Your task to perform on an android device: turn off priority inbox in the gmail app Image 0: 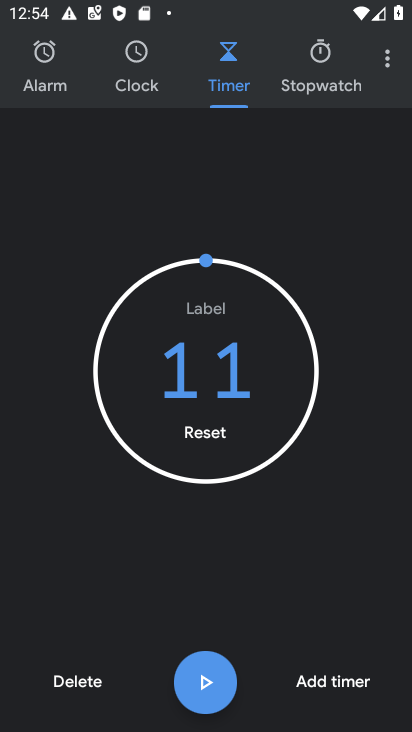
Step 0: press home button
Your task to perform on an android device: turn off priority inbox in the gmail app Image 1: 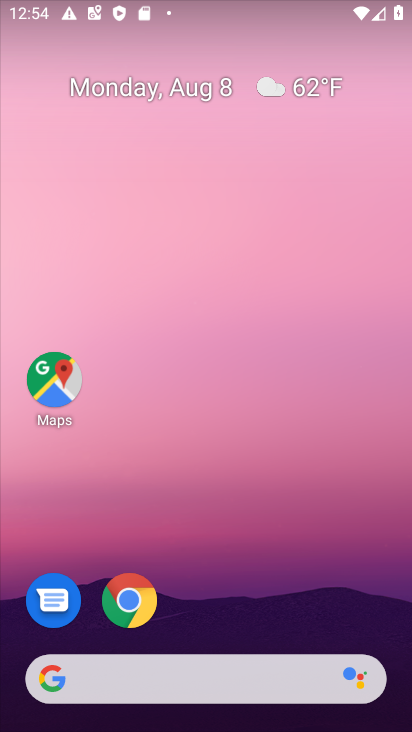
Step 1: drag from (201, 610) to (163, 233)
Your task to perform on an android device: turn off priority inbox in the gmail app Image 2: 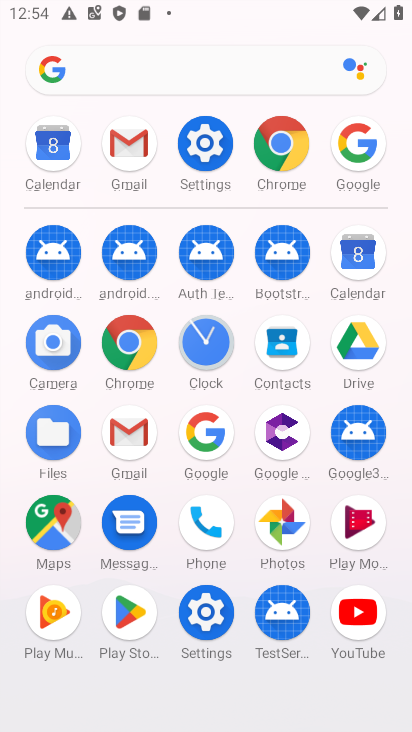
Step 2: click (126, 150)
Your task to perform on an android device: turn off priority inbox in the gmail app Image 3: 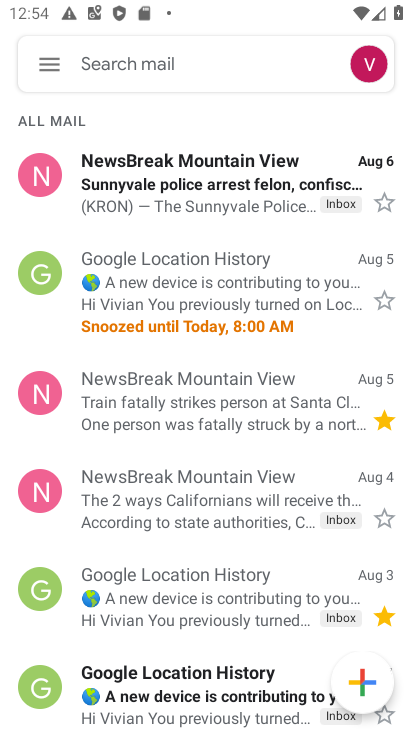
Step 3: click (51, 61)
Your task to perform on an android device: turn off priority inbox in the gmail app Image 4: 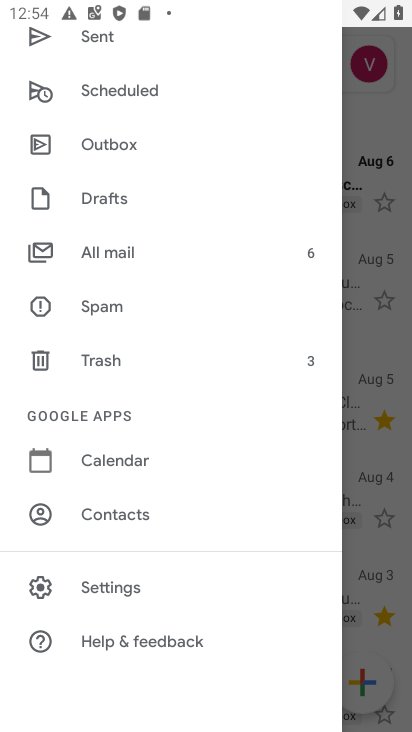
Step 4: click (143, 584)
Your task to perform on an android device: turn off priority inbox in the gmail app Image 5: 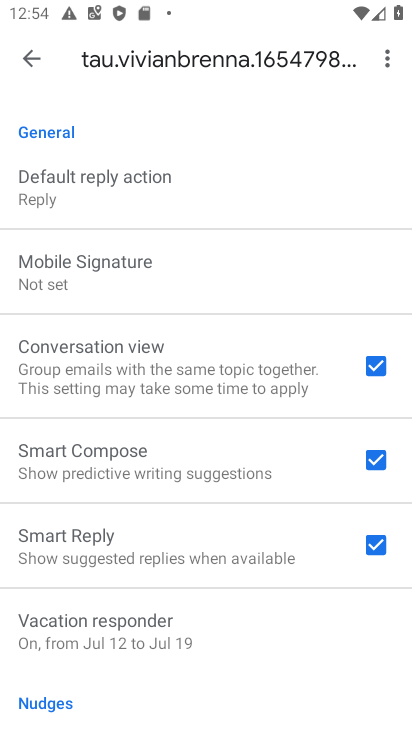
Step 5: drag from (177, 246) to (181, 520)
Your task to perform on an android device: turn off priority inbox in the gmail app Image 6: 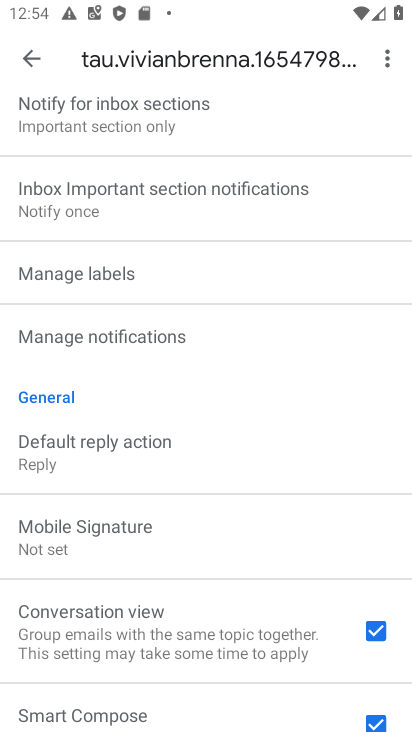
Step 6: drag from (175, 240) to (209, 508)
Your task to perform on an android device: turn off priority inbox in the gmail app Image 7: 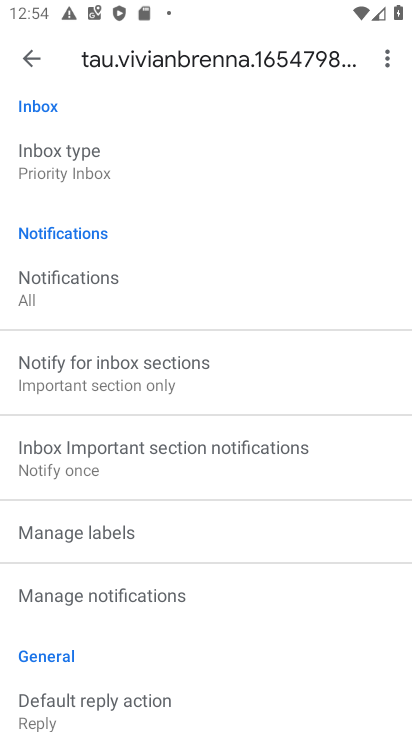
Step 7: click (112, 172)
Your task to perform on an android device: turn off priority inbox in the gmail app Image 8: 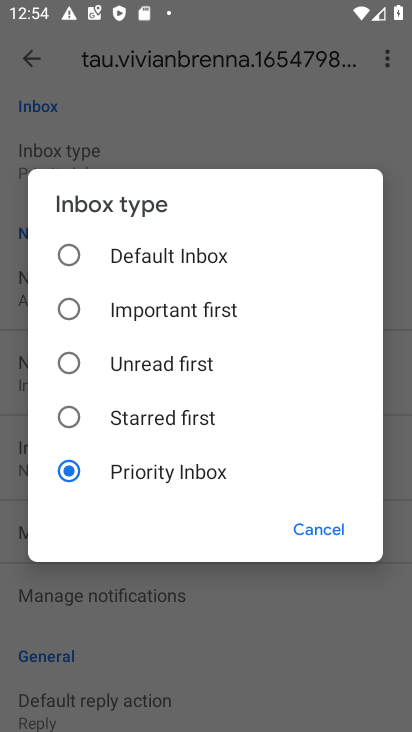
Step 8: click (136, 258)
Your task to perform on an android device: turn off priority inbox in the gmail app Image 9: 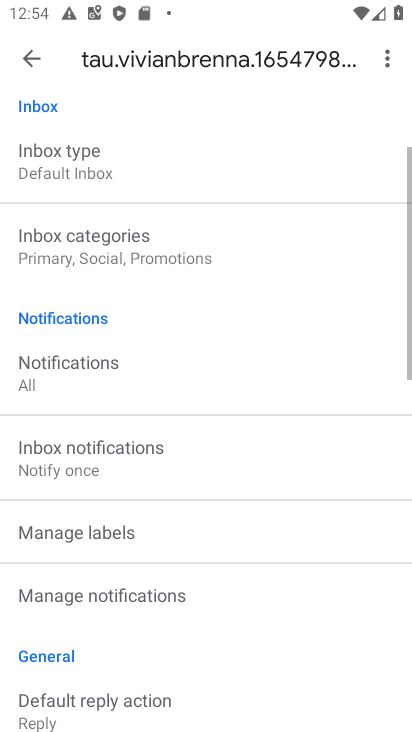
Step 9: task complete